Your task to perform on an android device: turn on priority inbox in the gmail app Image 0: 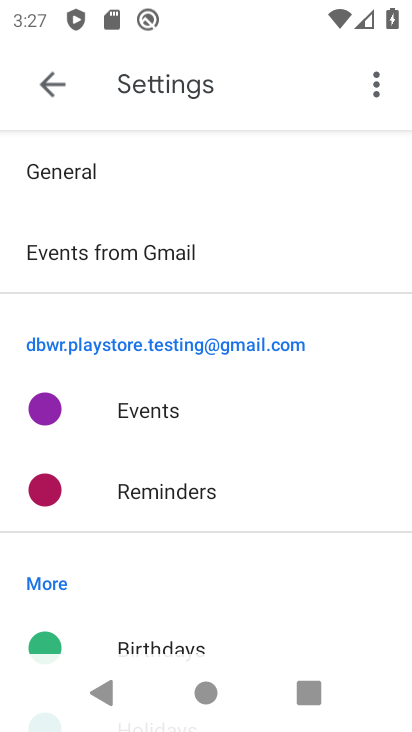
Step 0: press home button
Your task to perform on an android device: turn on priority inbox in the gmail app Image 1: 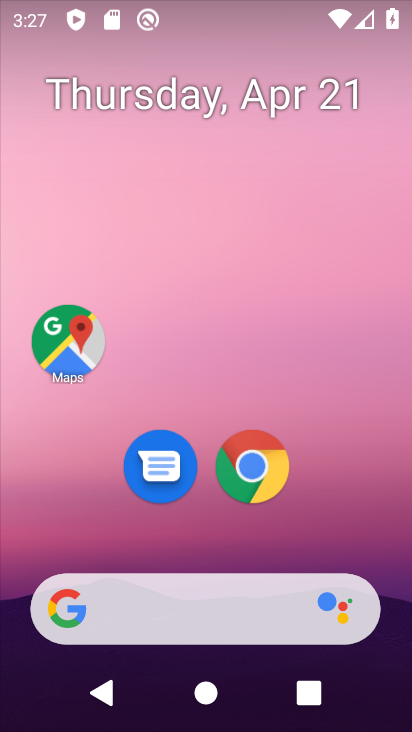
Step 1: drag from (221, 550) to (221, 155)
Your task to perform on an android device: turn on priority inbox in the gmail app Image 2: 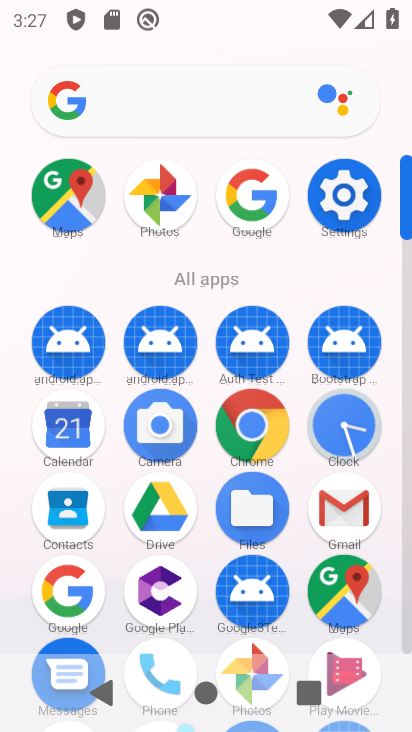
Step 2: click (333, 511)
Your task to perform on an android device: turn on priority inbox in the gmail app Image 3: 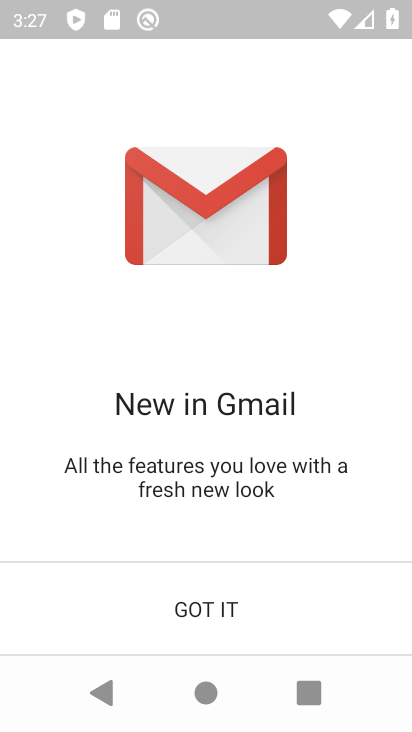
Step 3: click (257, 595)
Your task to perform on an android device: turn on priority inbox in the gmail app Image 4: 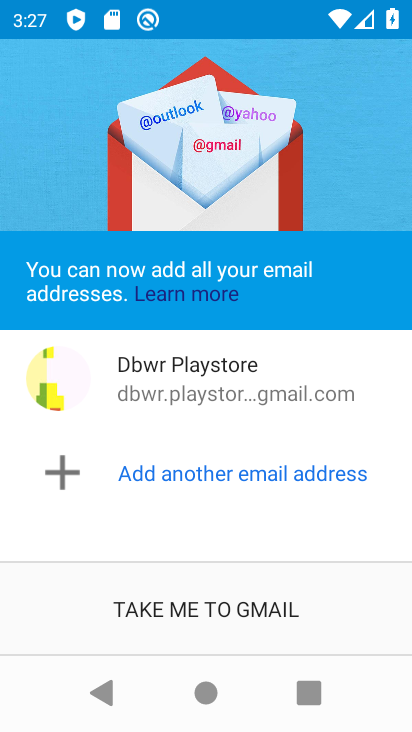
Step 4: click (221, 600)
Your task to perform on an android device: turn on priority inbox in the gmail app Image 5: 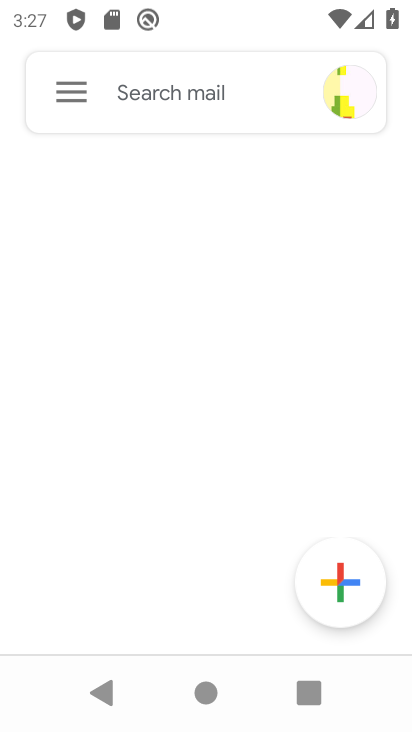
Step 5: click (78, 89)
Your task to perform on an android device: turn on priority inbox in the gmail app Image 6: 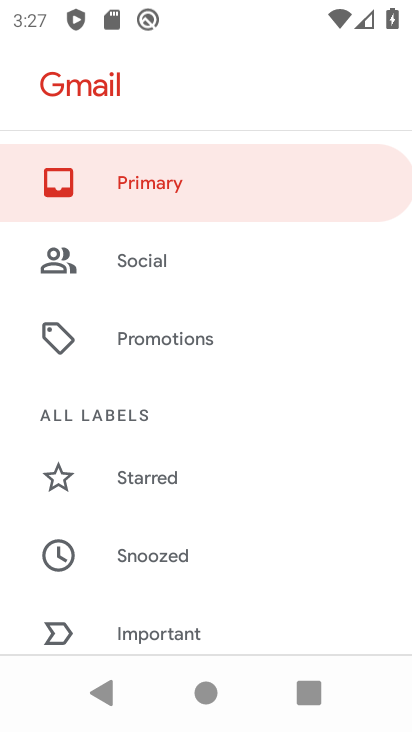
Step 6: drag from (221, 615) to (231, 180)
Your task to perform on an android device: turn on priority inbox in the gmail app Image 7: 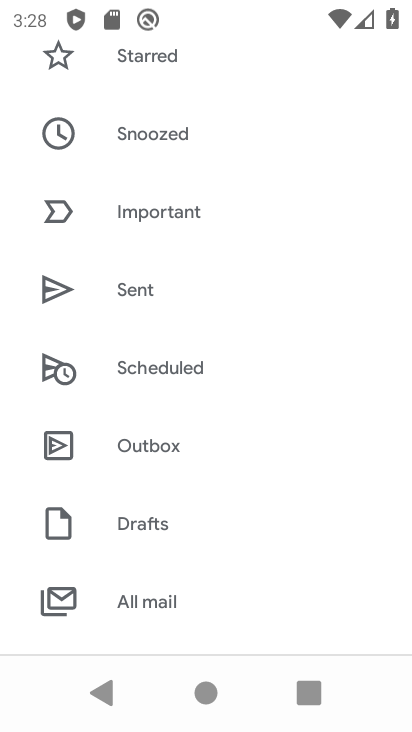
Step 7: drag from (207, 473) to (233, 237)
Your task to perform on an android device: turn on priority inbox in the gmail app Image 8: 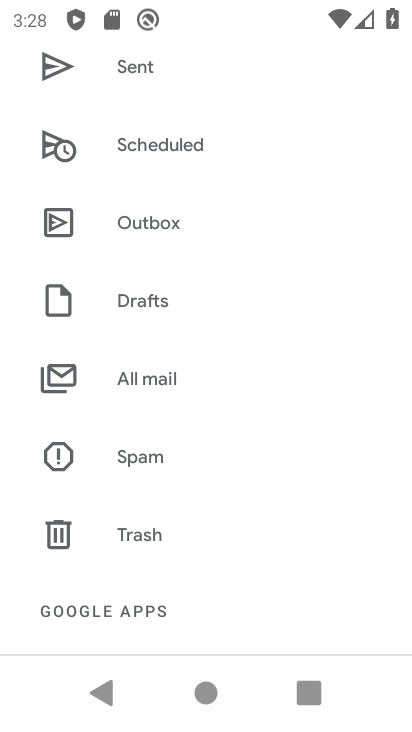
Step 8: drag from (187, 542) to (235, 271)
Your task to perform on an android device: turn on priority inbox in the gmail app Image 9: 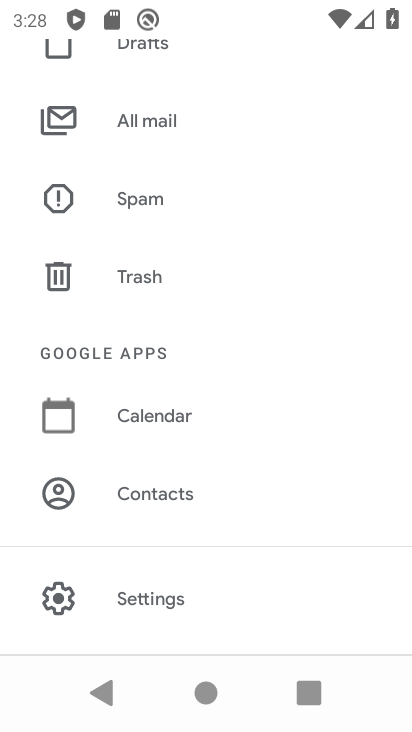
Step 9: click (144, 594)
Your task to perform on an android device: turn on priority inbox in the gmail app Image 10: 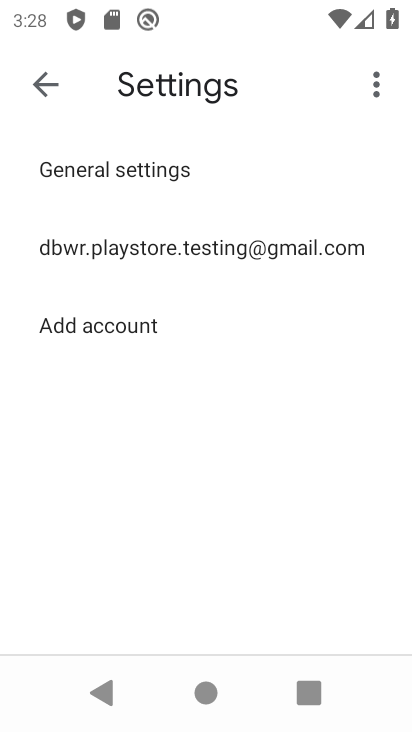
Step 10: click (232, 247)
Your task to perform on an android device: turn on priority inbox in the gmail app Image 11: 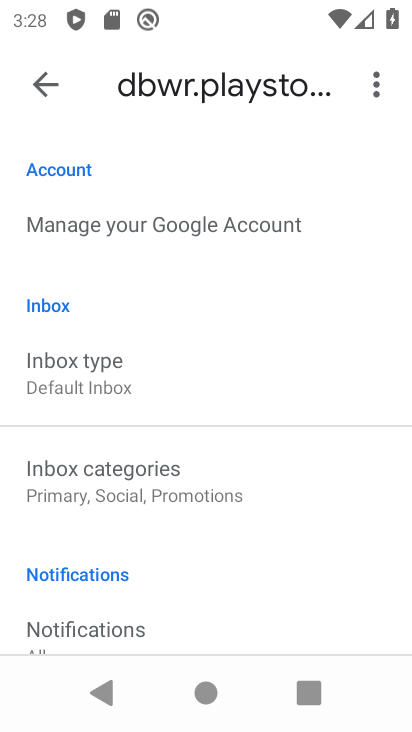
Step 11: click (128, 389)
Your task to perform on an android device: turn on priority inbox in the gmail app Image 12: 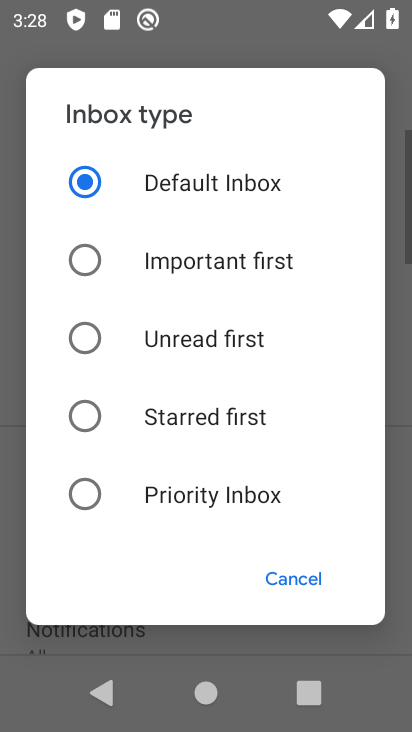
Step 12: click (150, 503)
Your task to perform on an android device: turn on priority inbox in the gmail app Image 13: 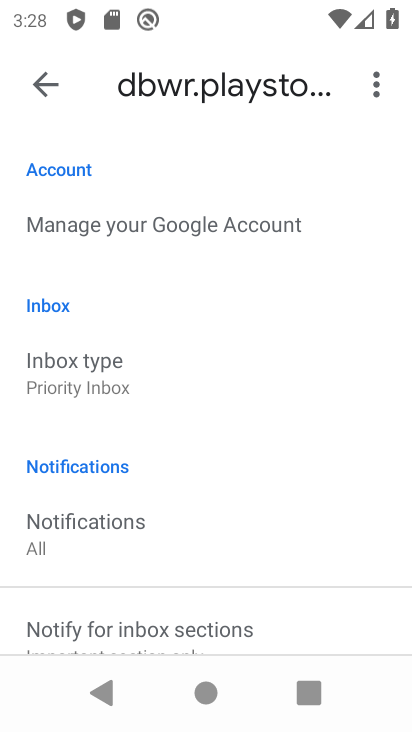
Step 13: task complete